Your task to perform on an android device: Check the news Image 0: 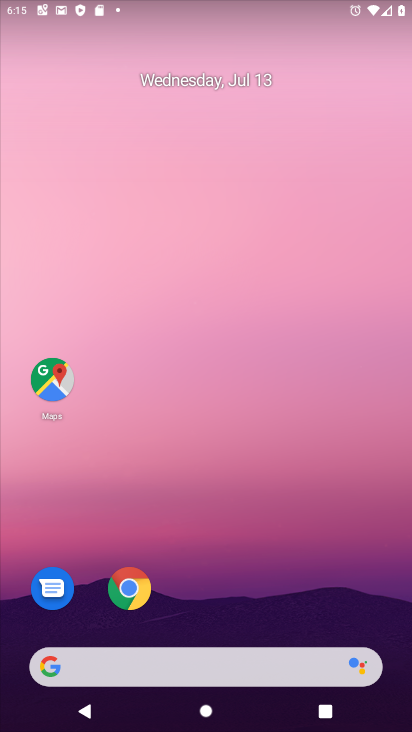
Step 0: click (116, 663)
Your task to perform on an android device: Check the news Image 1: 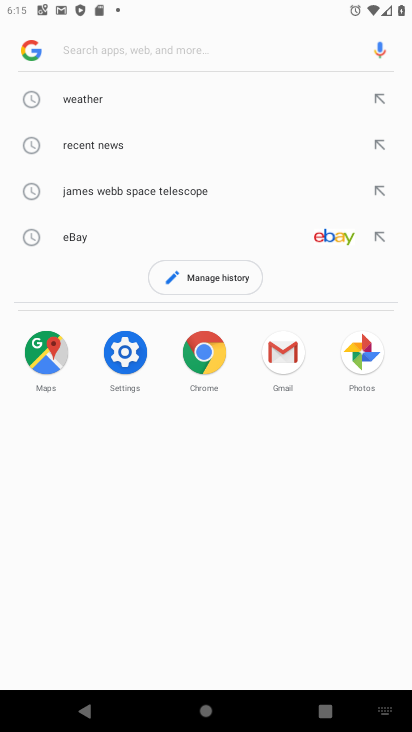
Step 1: type "news"
Your task to perform on an android device: Check the news Image 2: 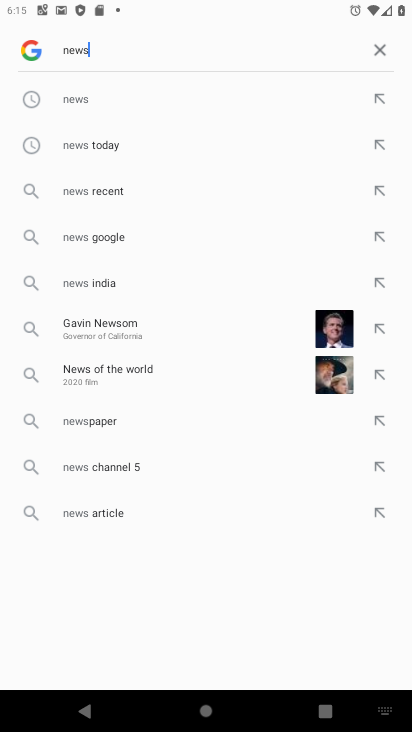
Step 2: click (69, 100)
Your task to perform on an android device: Check the news Image 3: 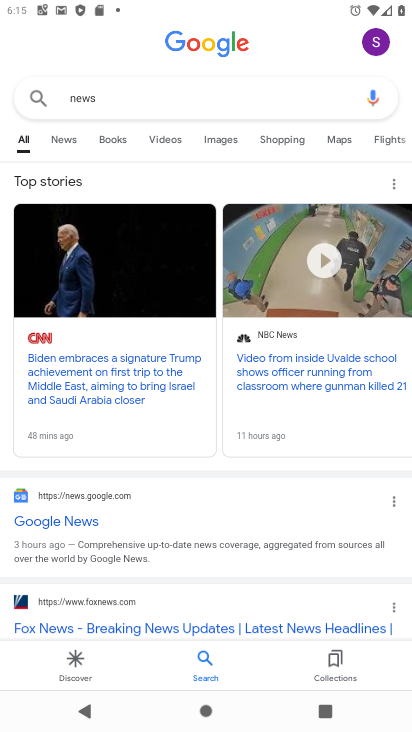
Step 3: task complete